Your task to perform on an android device: turn on location history Image 0: 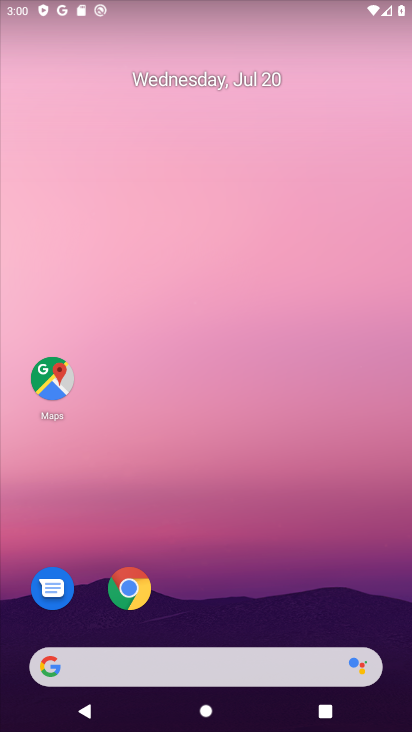
Step 0: drag from (190, 638) to (208, 257)
Your task to perform on an android device: turn on location history Image 1: 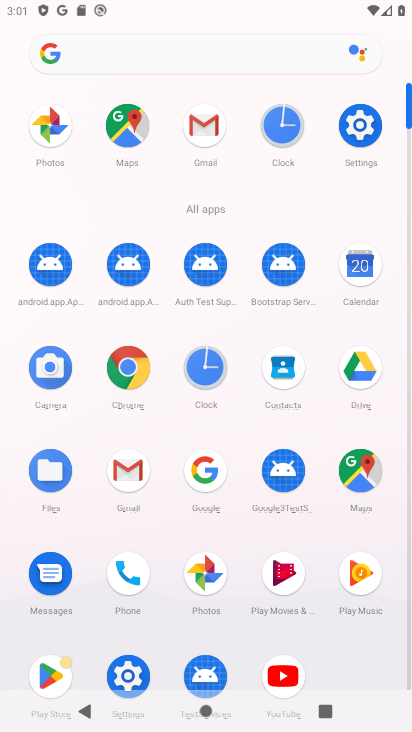
Step 1: click (350, 132)
Your task to perform on an android device: turn on location history Image 2: 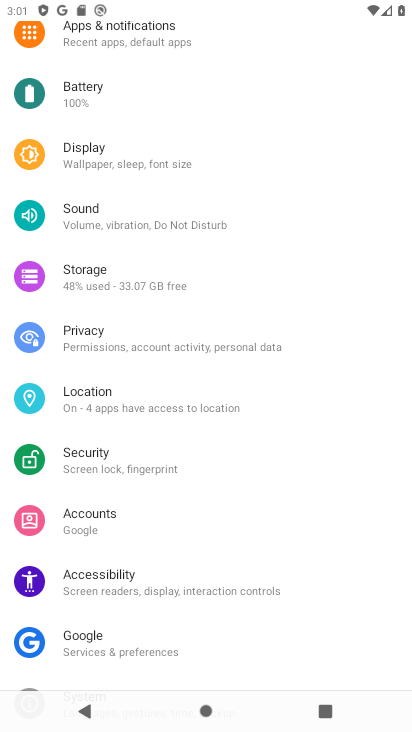
Step 2: click (120, 392)
Your task to perform on an android device: turn on location history Image 3: 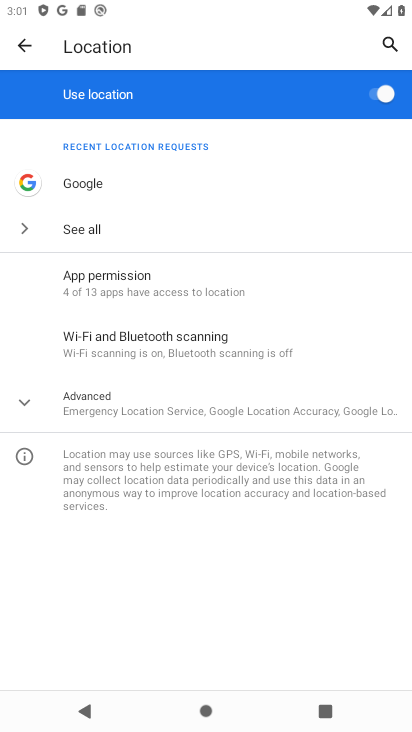
Step 3: click (93, 403)
Your task to perform on an android device: turn on location history Image 4: 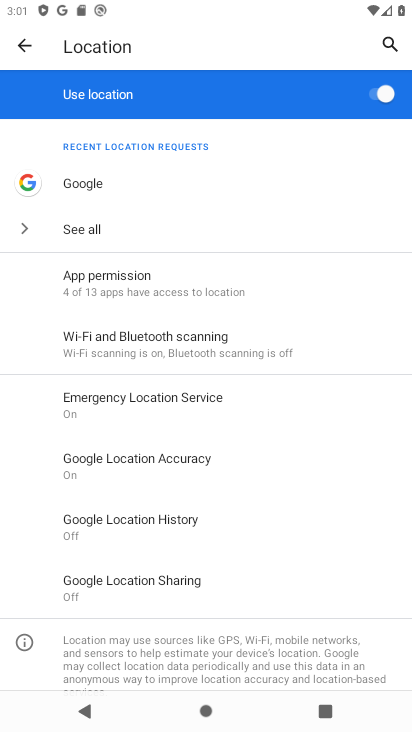
Step 4: click (144, 514)
Your task to perform on an android device: turn on location history Image 5: 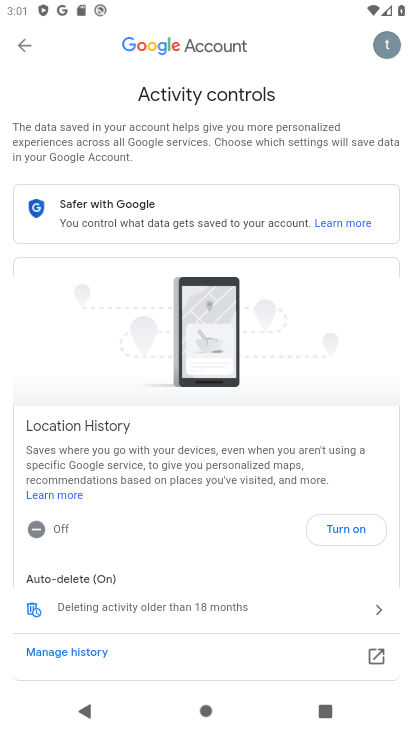
Step 5: click (328, 534)
Your task to perform on an android device: turn on location history Image 6: 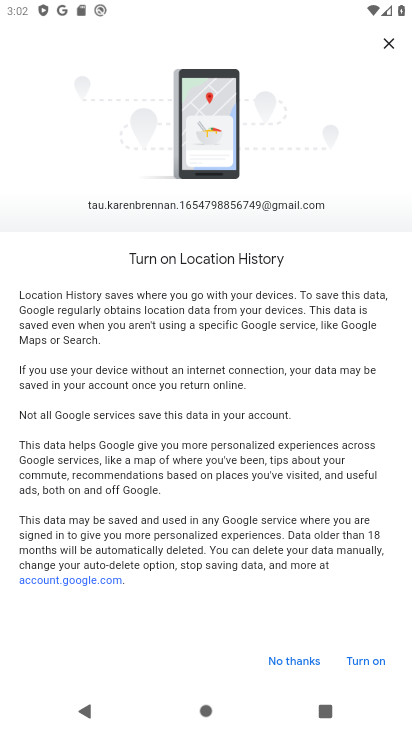
Step 6: click (354, 663)
Your task to perform on an android device: turn on location history Image 7: 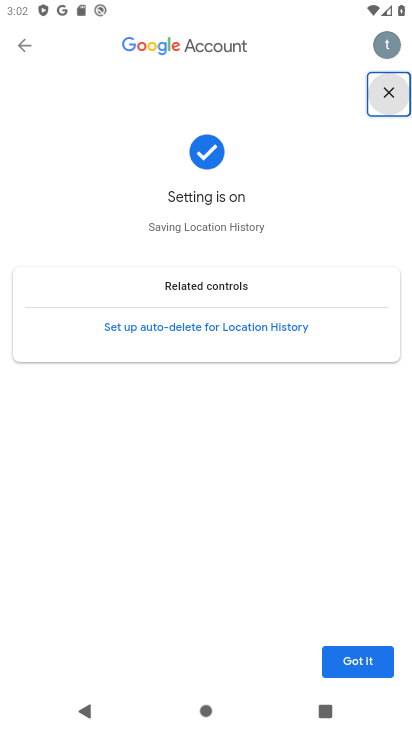
Step 7: click (354, 663)
Your task to perform on an android device: turn on location history Image 8: 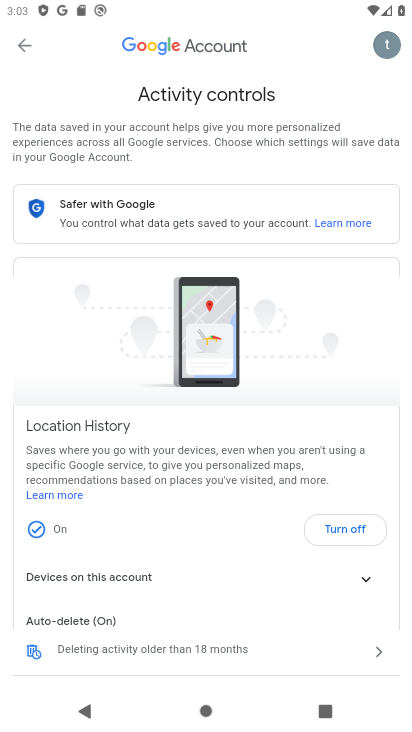
Step 8: task complete